Your task to perform on an android device: Set an alarm for 6am Image 0: 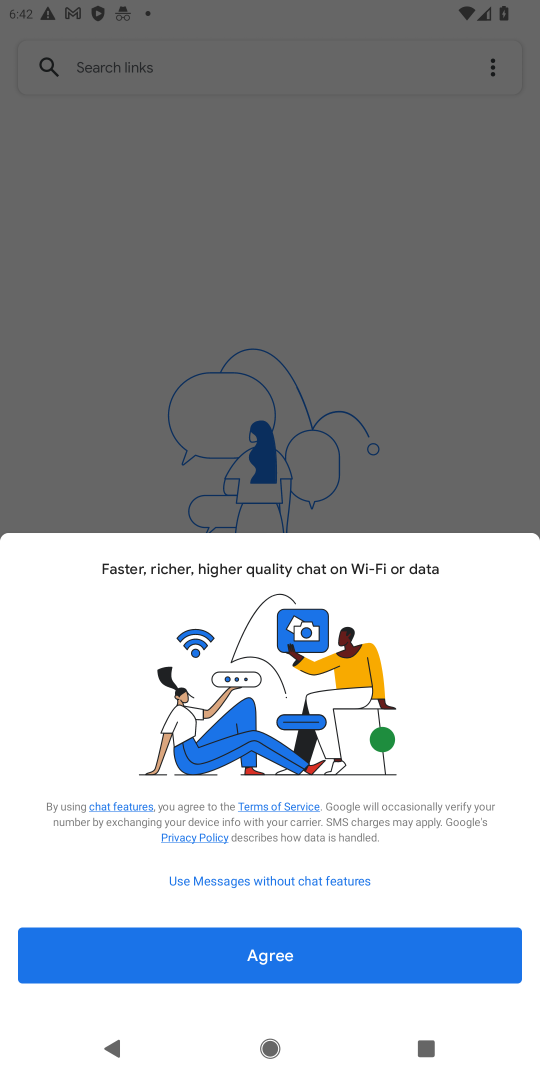
Step 0: press home button
Your task to perform on an android device: Set an alarm for 6am Image 1: 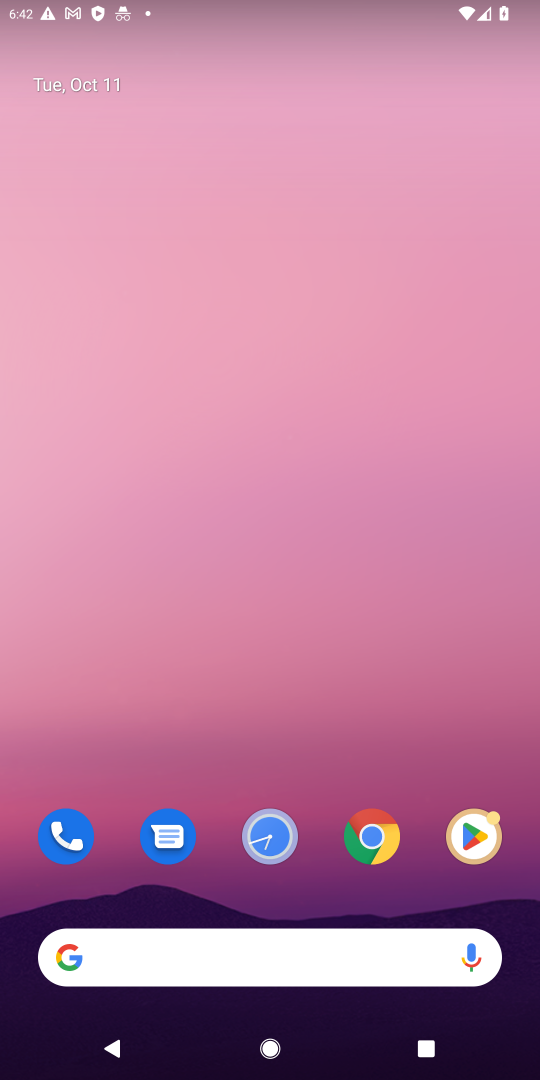
Step 1: click (271, 835)
Your task to perform on an android device: Set an alarm for 6am Image 2: 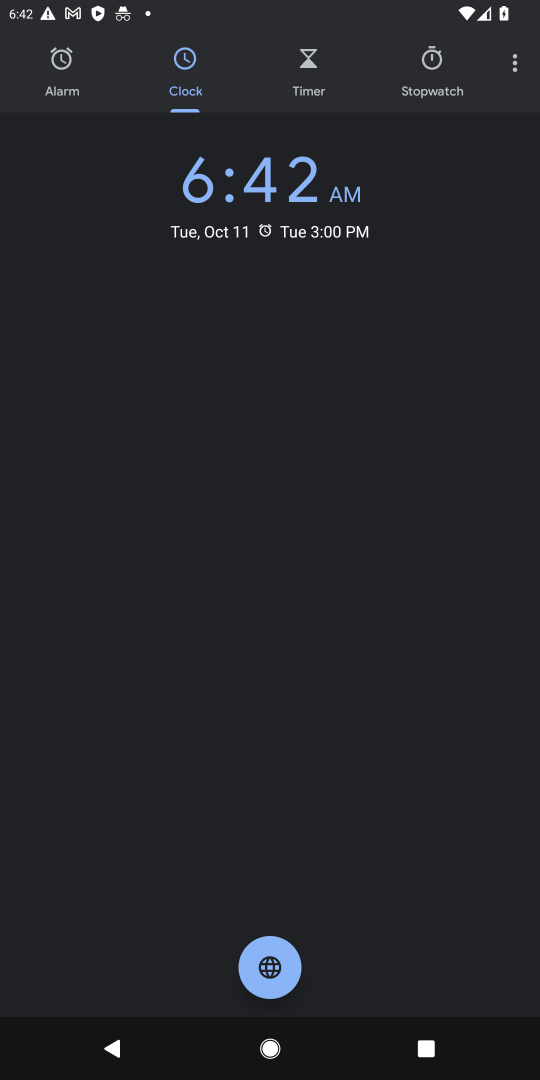
Step 2: click (59, 62)
Your task to perform on an android device: Set an alarm for 6am Image 3: 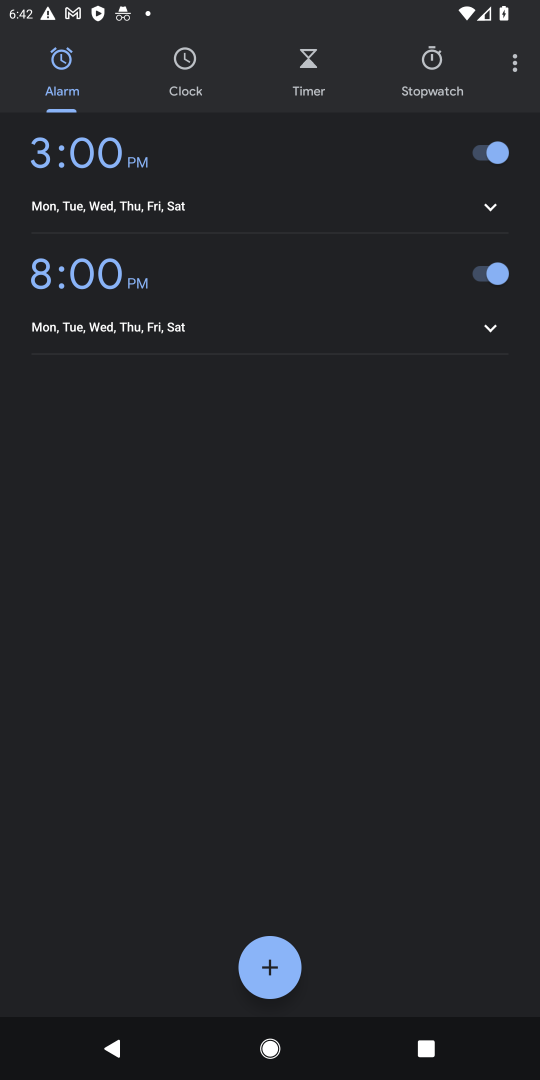
Step 3: click (101, 268)
Your task to perform on an android device: Set an alarm for 6am Image 4: 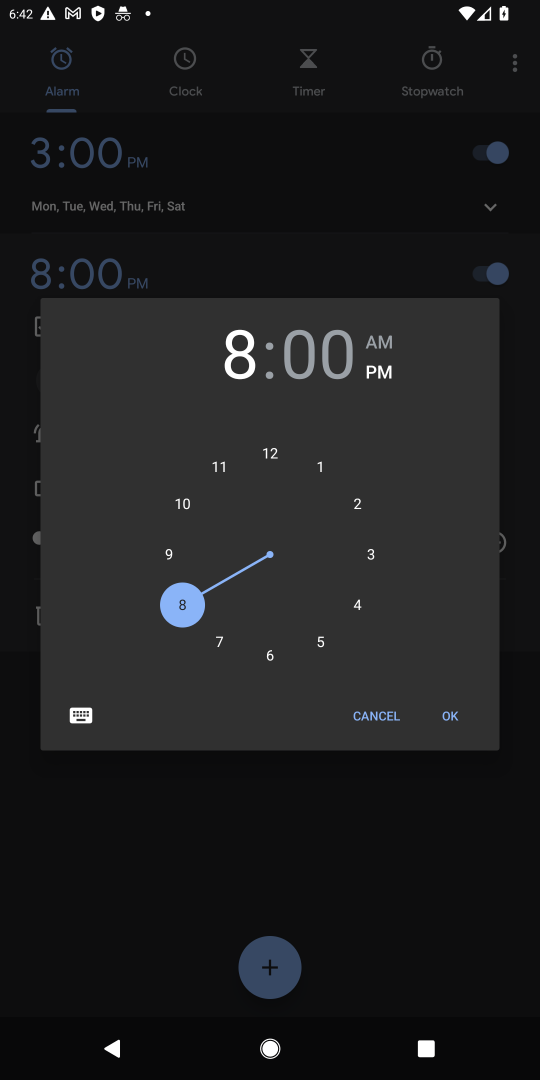
Step 4: click (272, 659)
Your task to perform on an android device: Set an alarm for 6am Image 5: 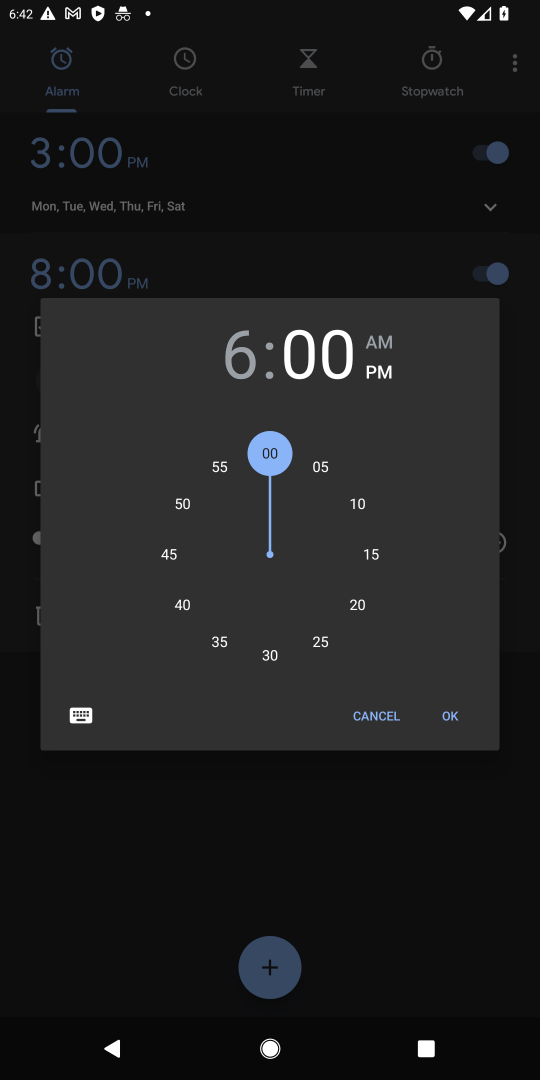
Step 5: click (382, 340)
Your task to perform on an android device: Set an alarm for 6am Image 6: 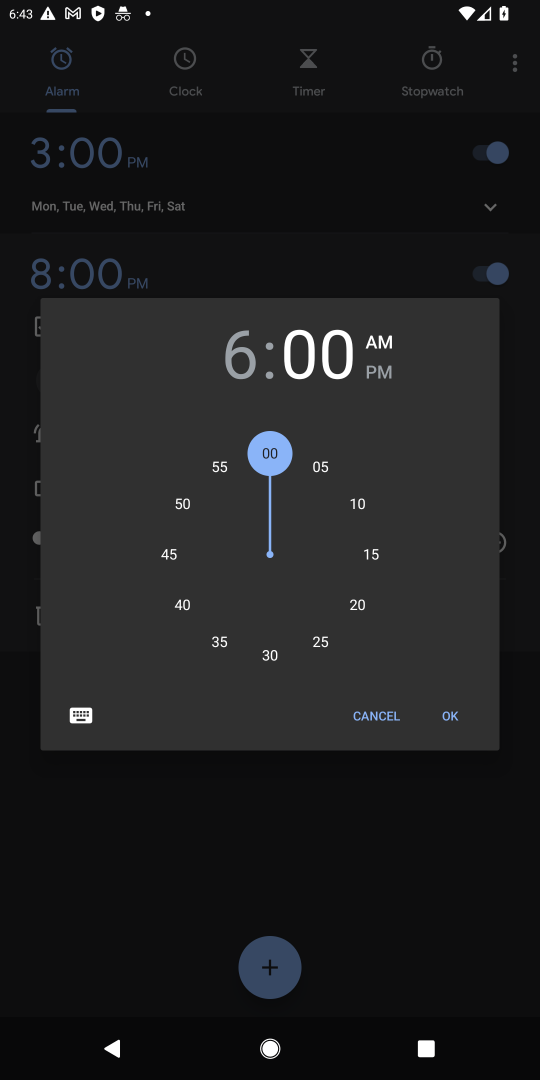
Step 6: click (453, 717)
Your task to perform on an android device: Set an alarm for 6am Image 7: 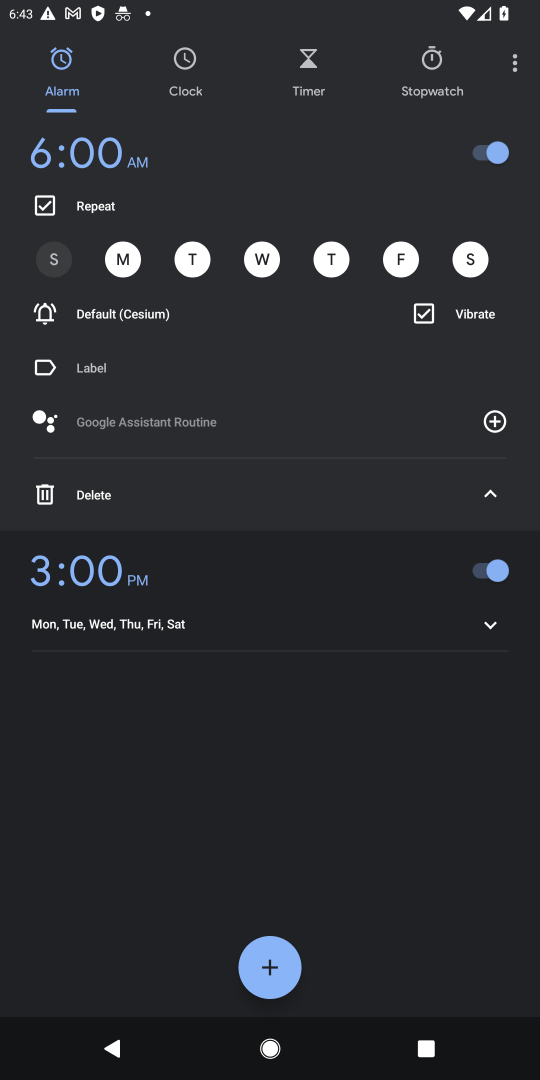
Step 7: click (486, 494)
Your task to perform on an android device: Set an alarm for 6am Image 8: 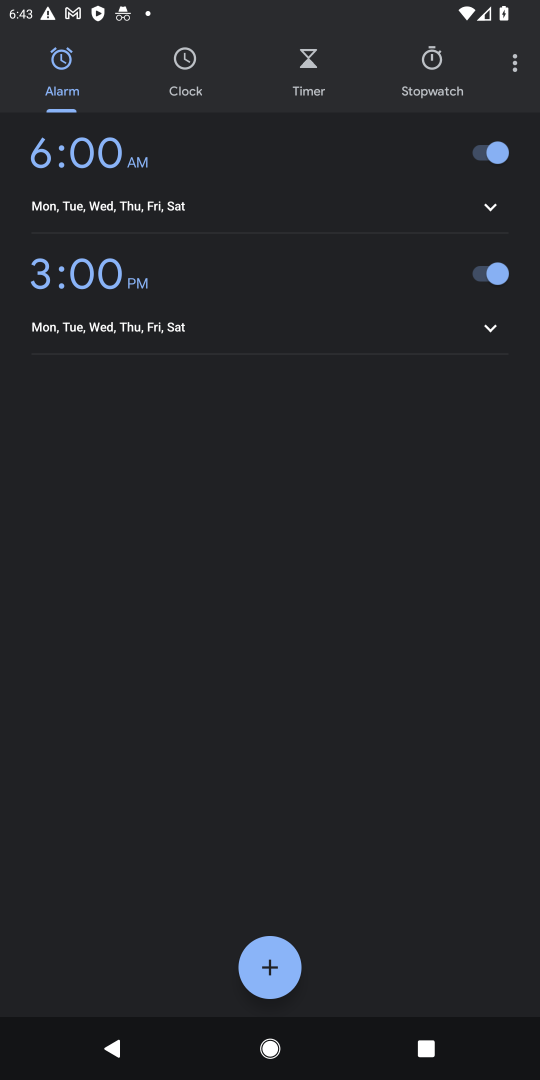
Step 8: task complete